Your task to perform on an android device: add a contact in the contacts app Image 0: 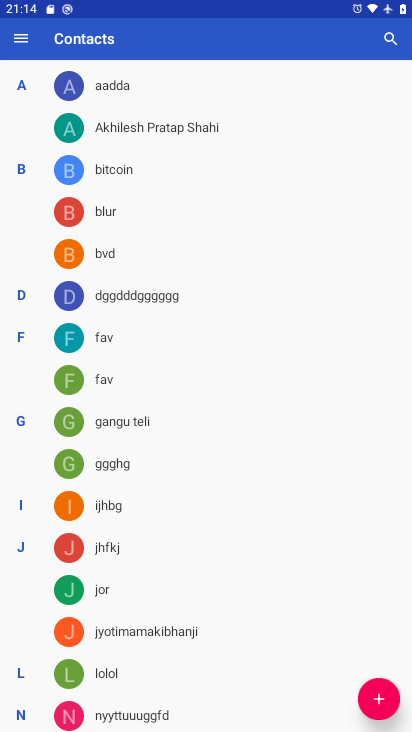
Step 0: click (388, 720)
Your task to perform on an android device: add a contact in the contacts app Image 1: 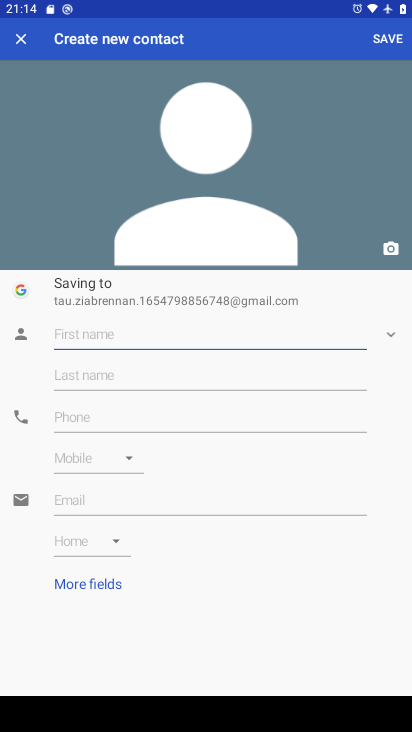
Step 1: click (191, 328)
Your task to perform on an android device: add a contact in the contacts app Image 2: 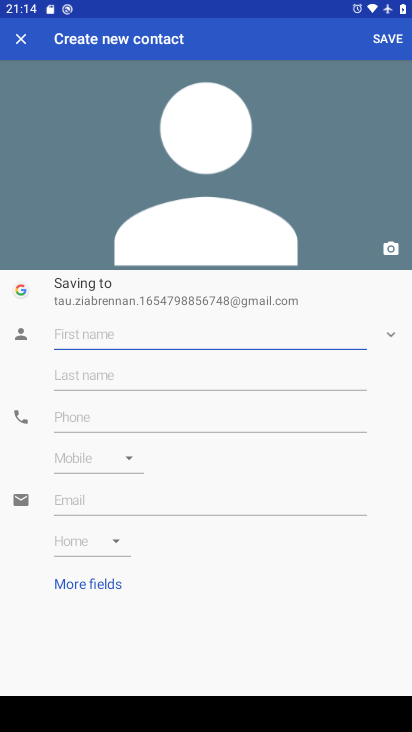
Step 2: type "sanjay "
Your task to perform on an android device: add a contact in the contacts app Image 3: 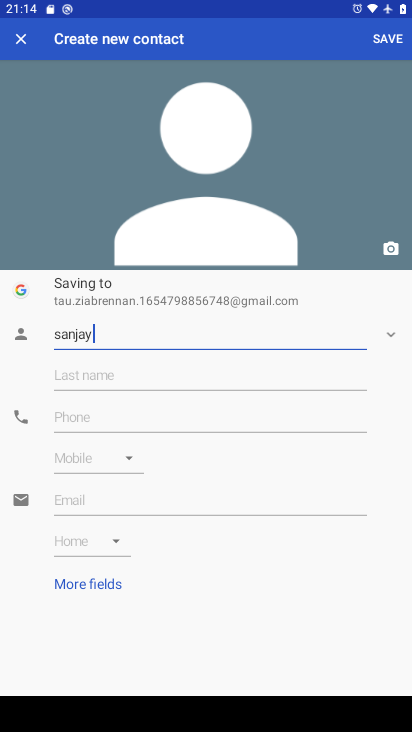
Step 3: click (133, 417)
Your task to perform on an android device: add a contact in the contacts app Image 4: 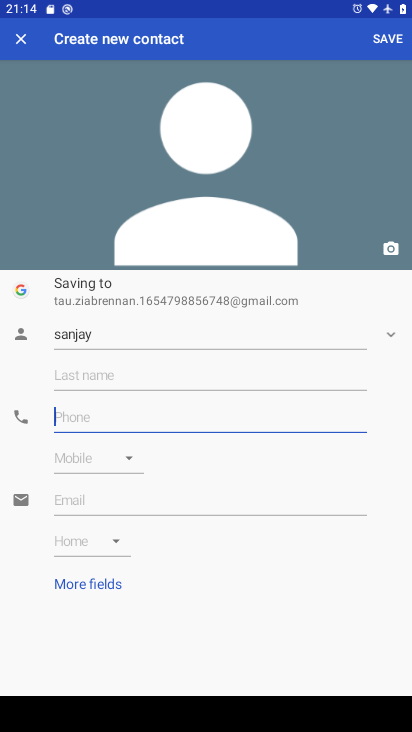
Step 4: type "0987654321 "
Your task to perform on an android device: add a contact in the contacts app Image 5: 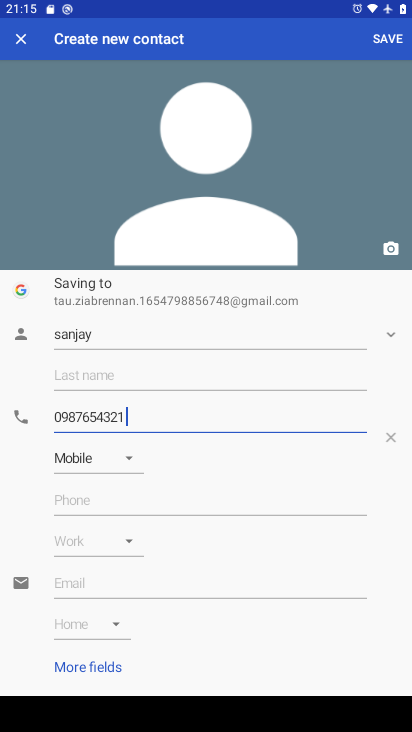
Step 5: click (387, 41)
Your task to perform on an android device: add a contact in the contacts app Image 6: 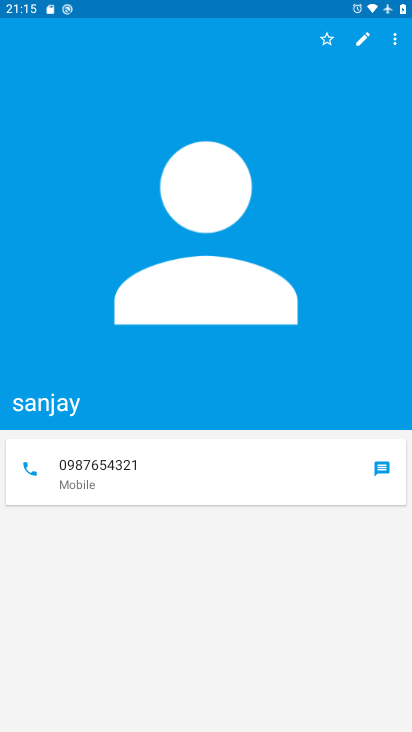
Step 6: task complete